Your task to perform on an android device: Play the last video I watched on Youtube Image 0: 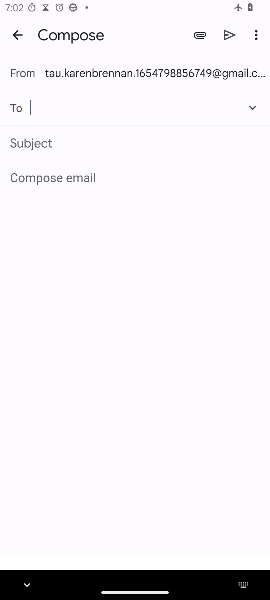
Step 0: press home button
Your task to perform on an android device: Play the last video I watched on Youtube Image 1: 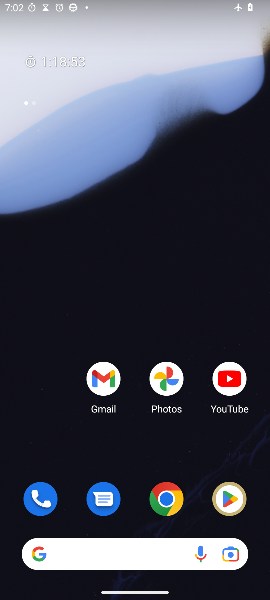
Step 1: drag from (140, 452) to (115, 63)
Your task to perform on an android device: Play the last video I watched on Youtube Image 2: 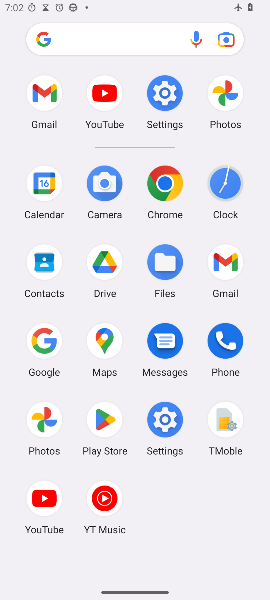
Step 2: click (98, 104)
Your task to perform on an android device: Play the last video I watched on Youtube Image 3: 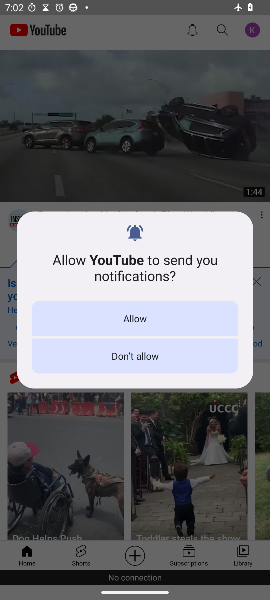
Step 3: click (142, 320)
Your task to perform on an android device: Play the last video I watched on Youtube Image 4: 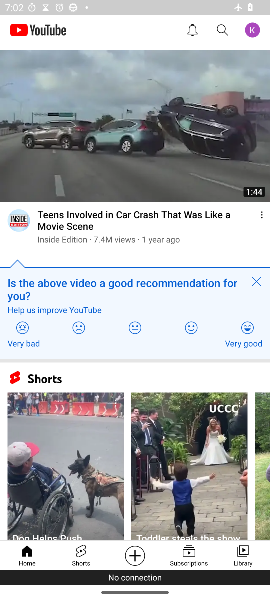
Step 4: click (251, 548)
Your task to perform on an android device: Play the last video I watched on Youtube Image 5: 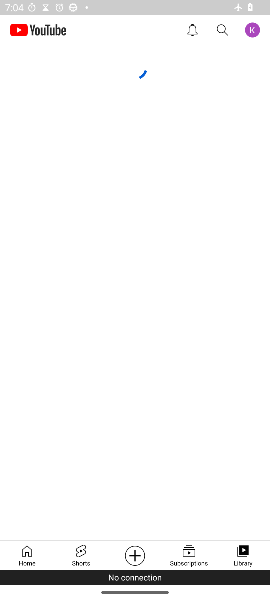
Step 5: task complete